Your task to perform on an android device: check out phone information Image 0: 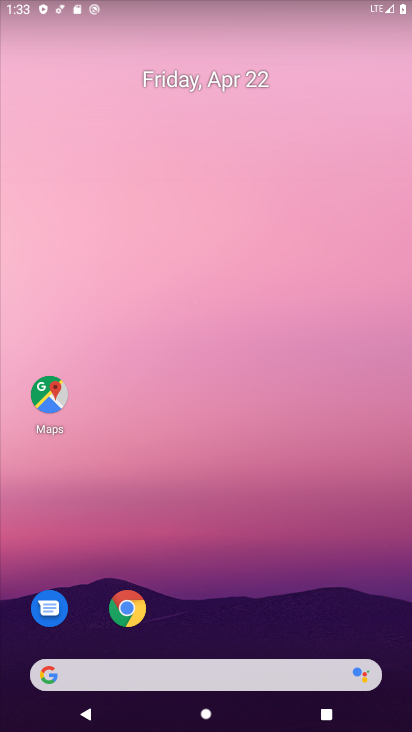
Step 0: drag from (264, 650) to (283, 157)
Your task to perform on an android device: check out phone information Image 1: 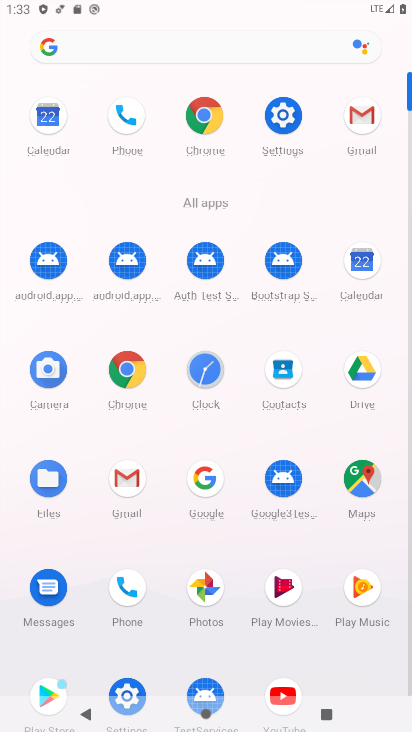
Step 1: click (288, 129)
Your task to perform on an android device: check out phone information Image 2: 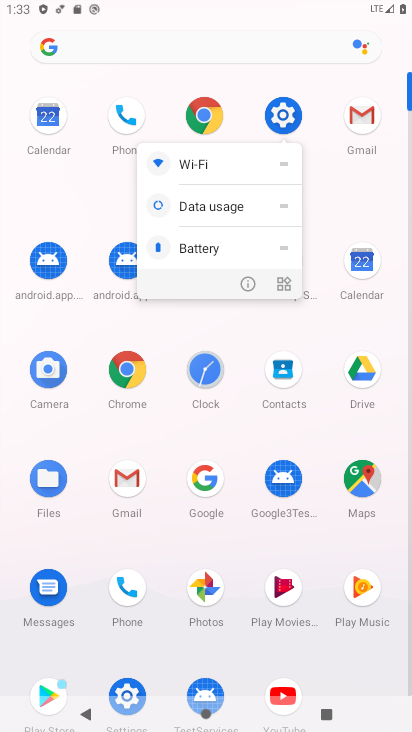
Step 2: click (286, 120)
Your task to perform on an android device: check out phone information Image 3: 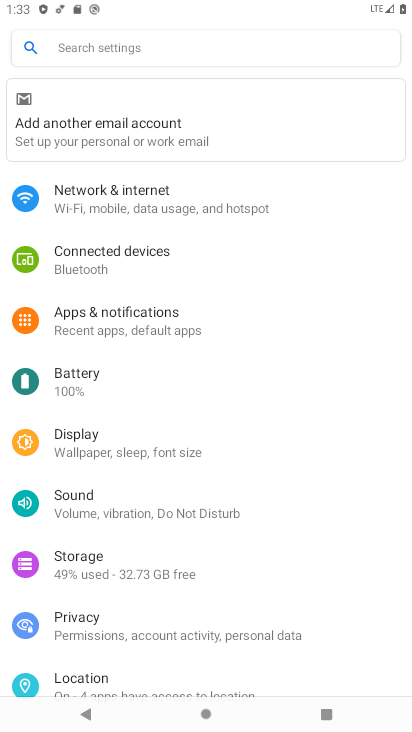
Step 3: click (202, 60)
Your task to perform on an android device: check out phone information Image 4: 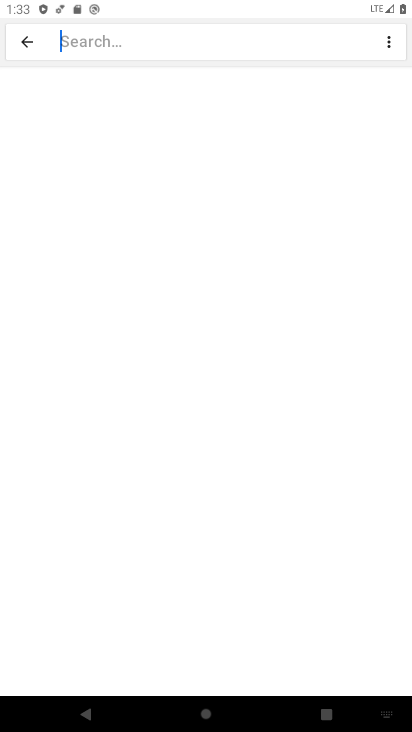
Step 4: drag from (390, 707) to (359, 579)
Your task to perform on an android device: check out phone information Image 5: 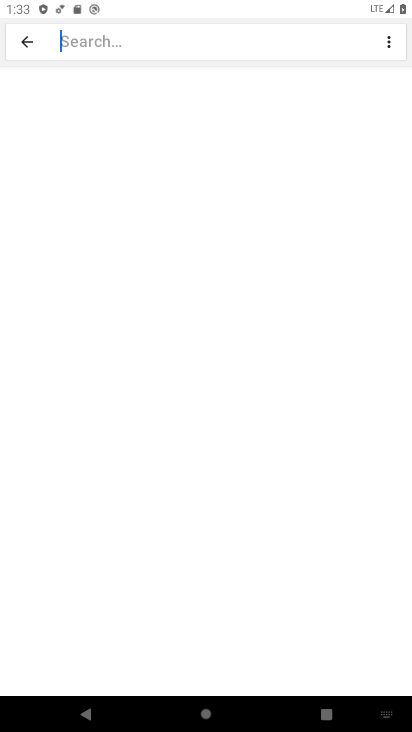
Step 5: click (397, 710)
Your task to perform on an android device: check out phone information Image 6: 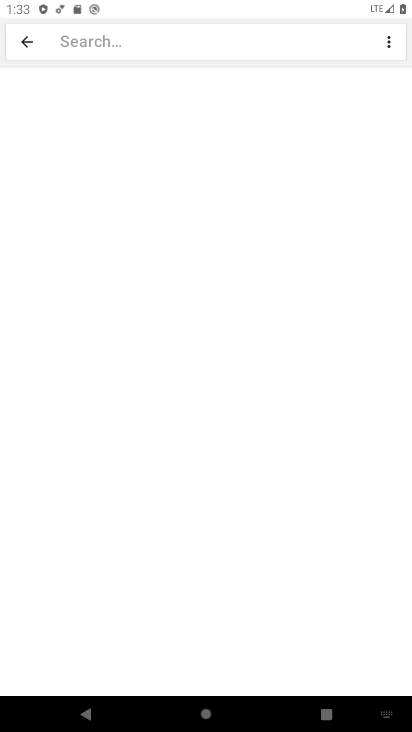
Step 6: drag from (406, 716) to (362, 496)
Your task to perform on an android device: check out phone information Image 7: 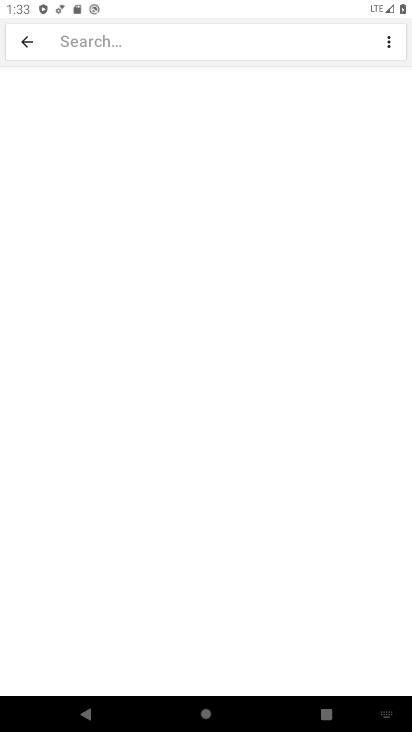
Step 7: click (141, 52)
Your task to perform on an android device: check out phone information Image 8: 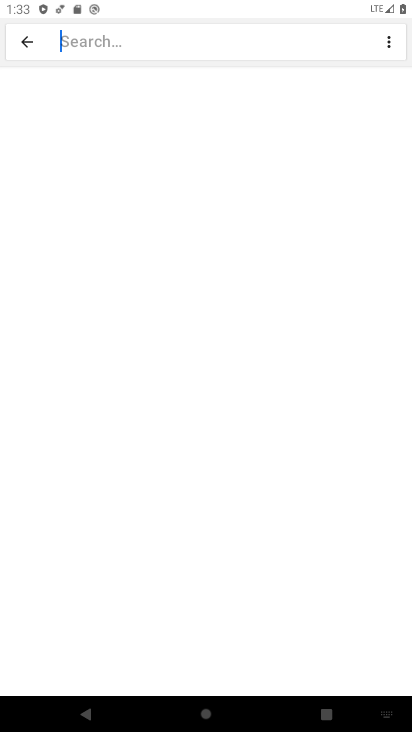
Step 8: drag from (391, 710) to (327, 461)
Your task to perform on an android device: check out phone information Image 9: 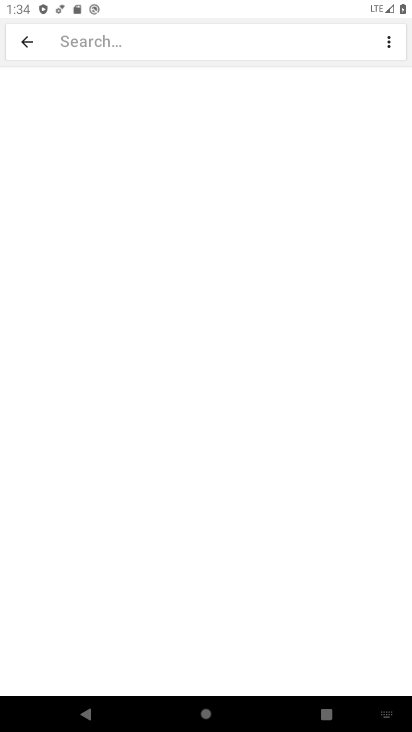
Step 9: click (384, 719)
Your task to perform on an android device: check out phone information Image 10: 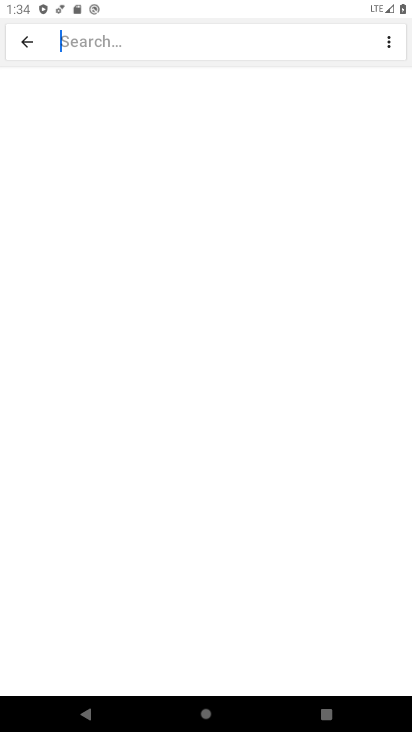
Step 10: click (402, 724)
Your task to perform on an android device: check out phone information Image 11: 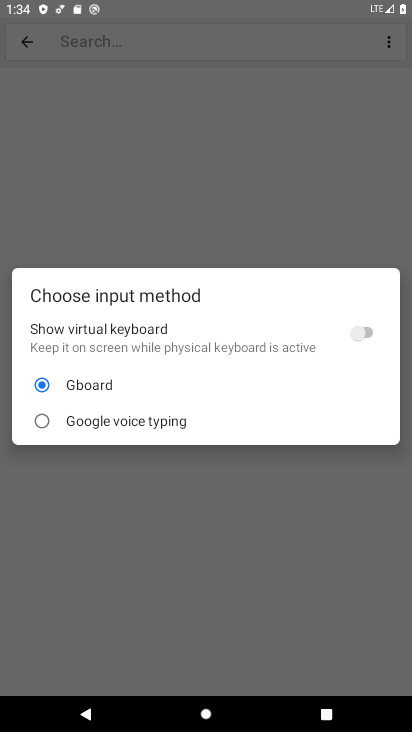
Step 11: click (356, 334)
Your task to perform on an android device: check out phone information Image 12: 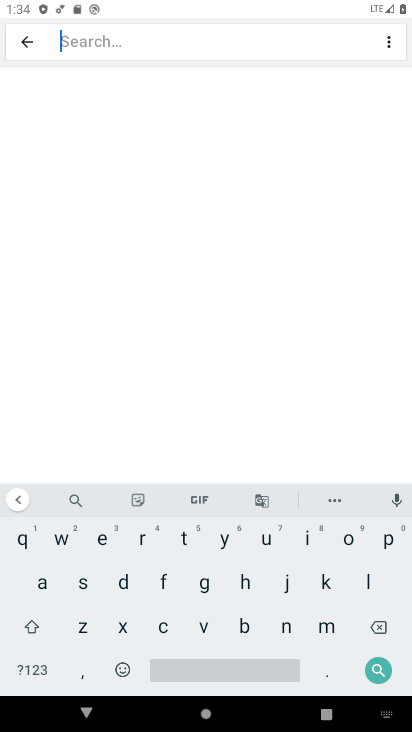
Step 12: click (38, 586)
Your task to perform on an android device: check out phone information Image 13: 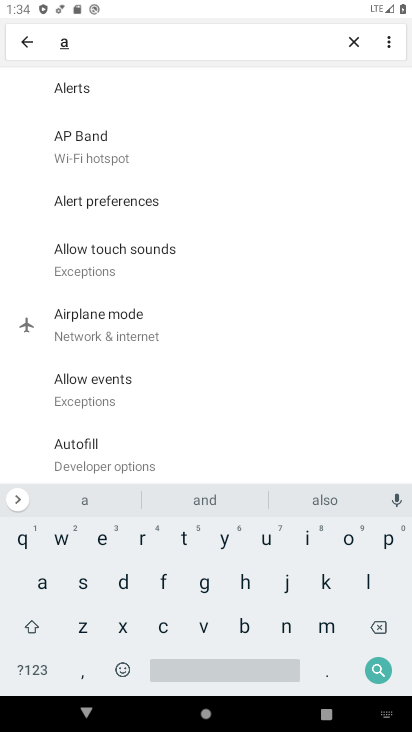
Step 13: click (248, 621)
Your task to perform on an android device: check out phone information Image 14: 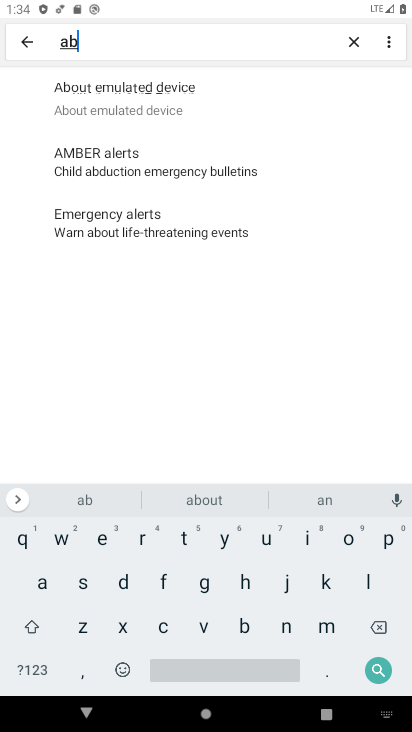
Step 14: click (150, 93)
Your task to perform on an android device: check out phone information Image 15: 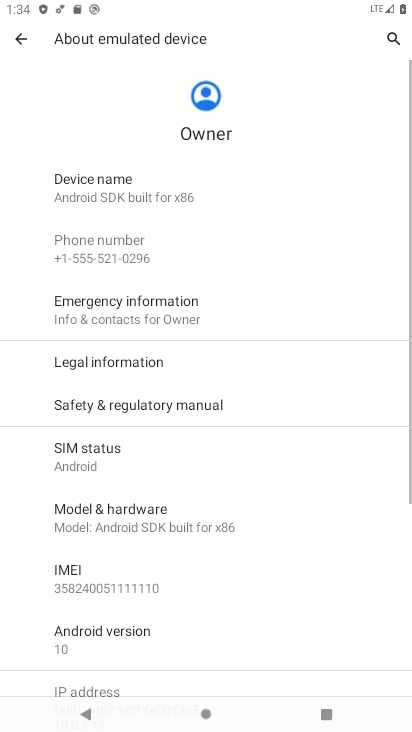
Step 15: task complete